Your task to perform on an android device: open app "LinkedIn" (install if not already installed) Image 0: 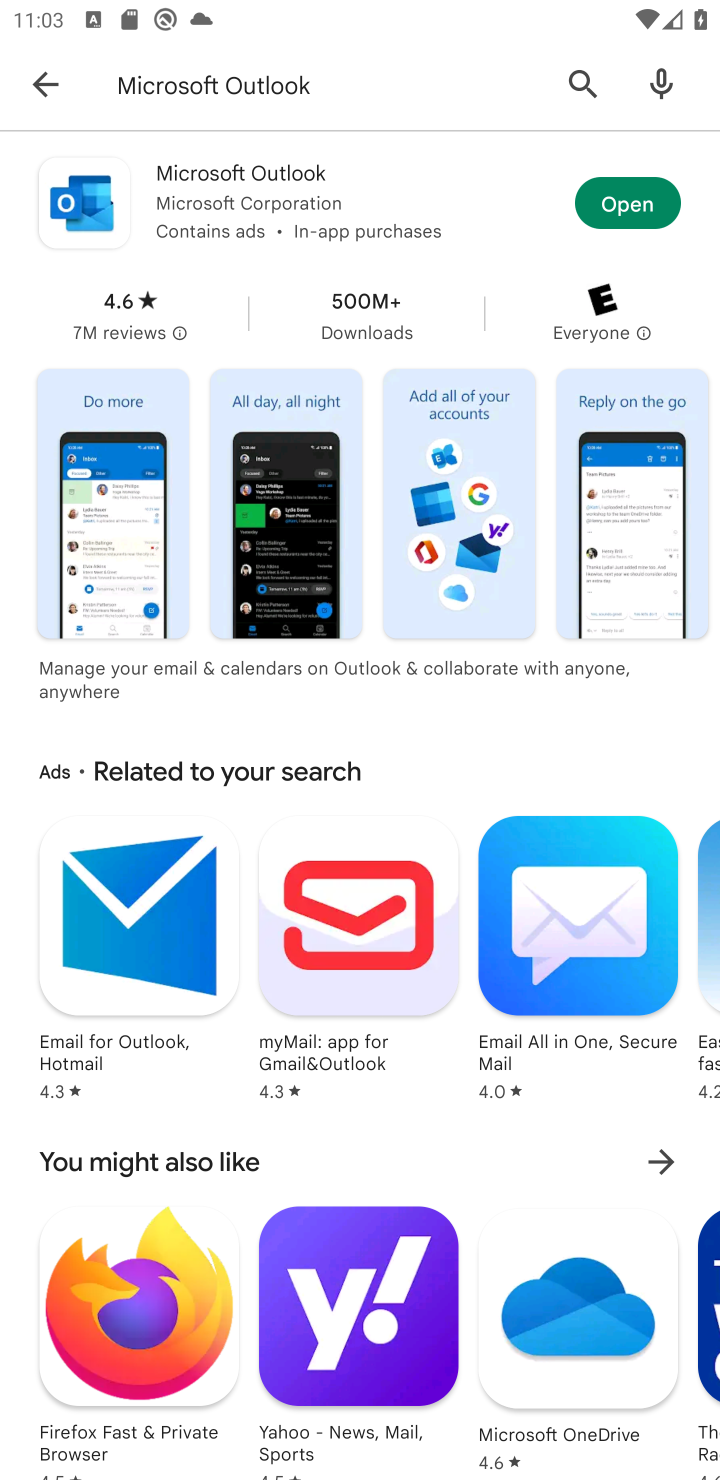
Step 0: press home button
Your task to perform on an android device: open app "LinkedIn" (install if not already installed) Image 1: 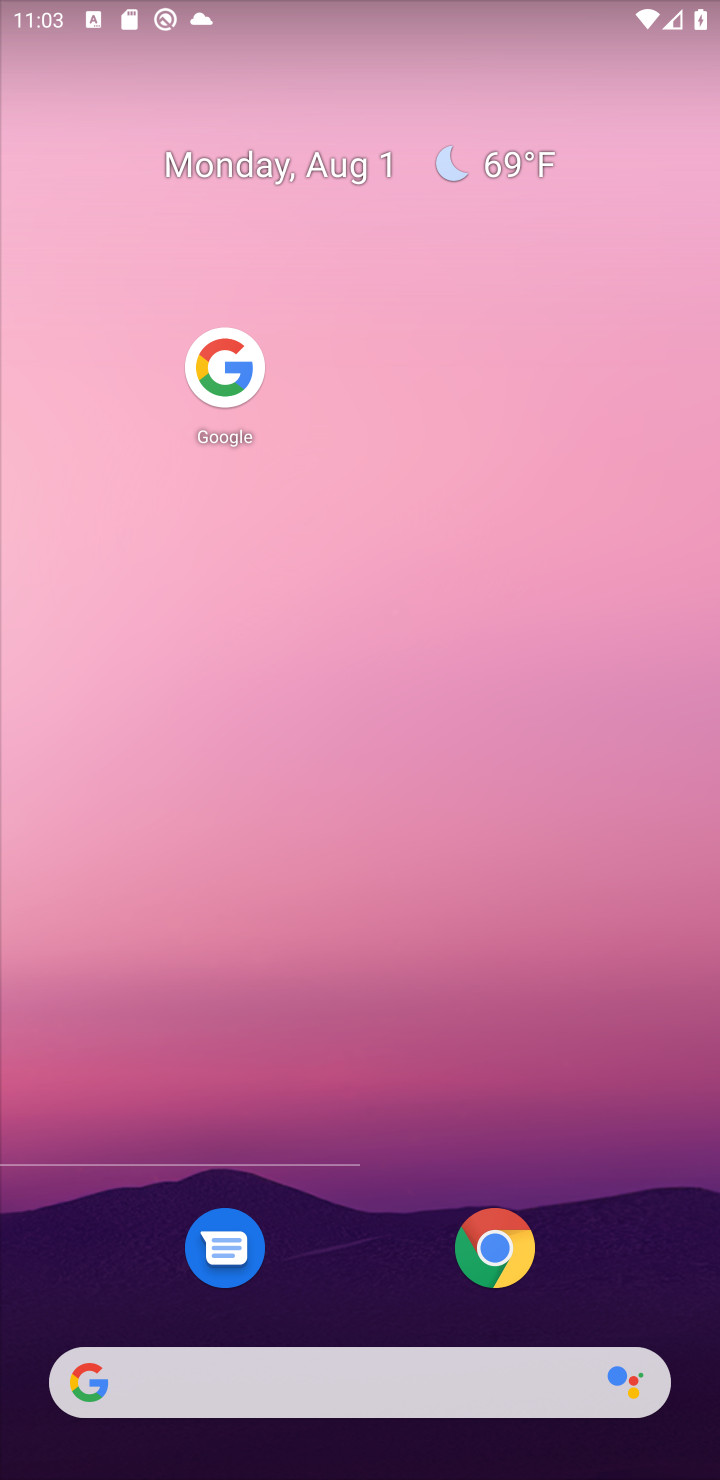
Step 1: drag from (391, 780) to (472, 202)
Your task to perform on an android device: open app "LinkedIn" (install if not already installed) Image 2: 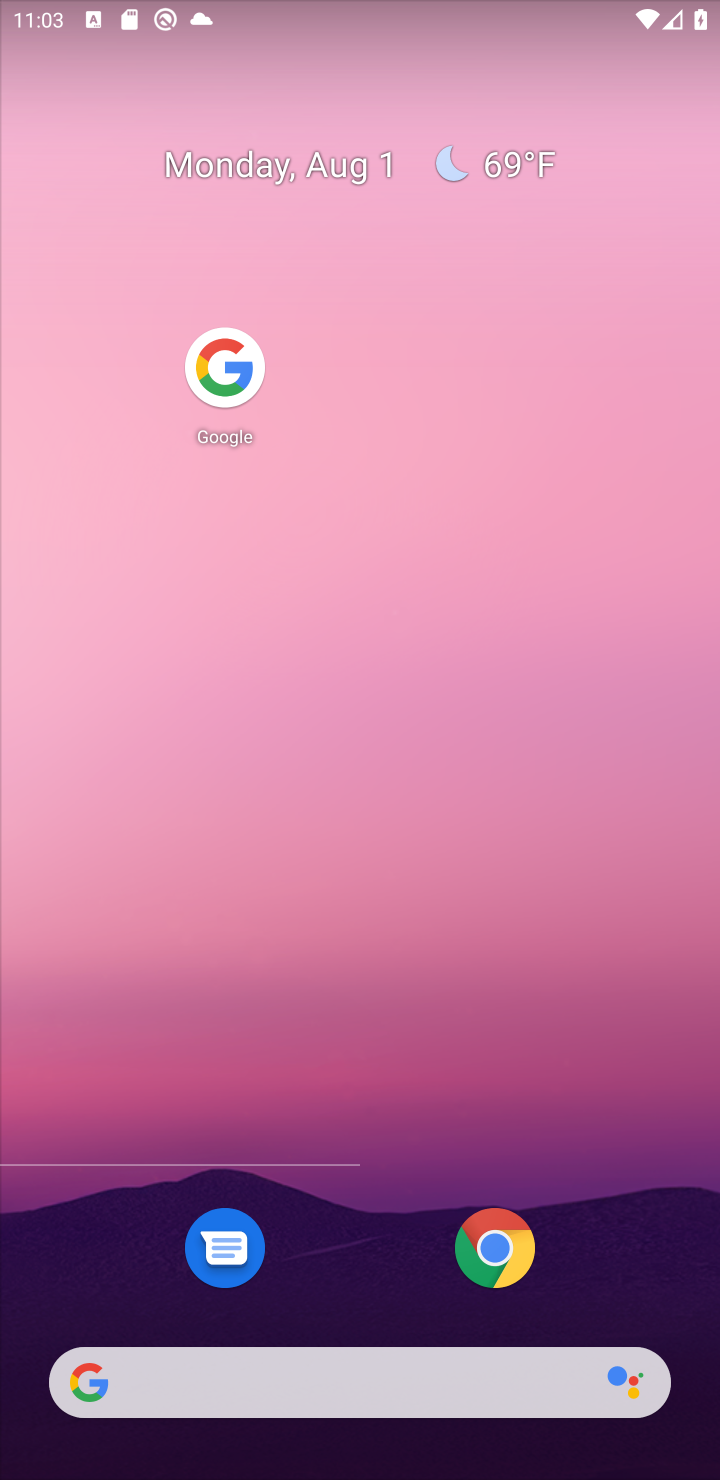
Step 2: drag from (478, 1011) to (599, 9)
Your task to perform on an android device: open app "LinkedIn" (install if not already installed) Image 3: 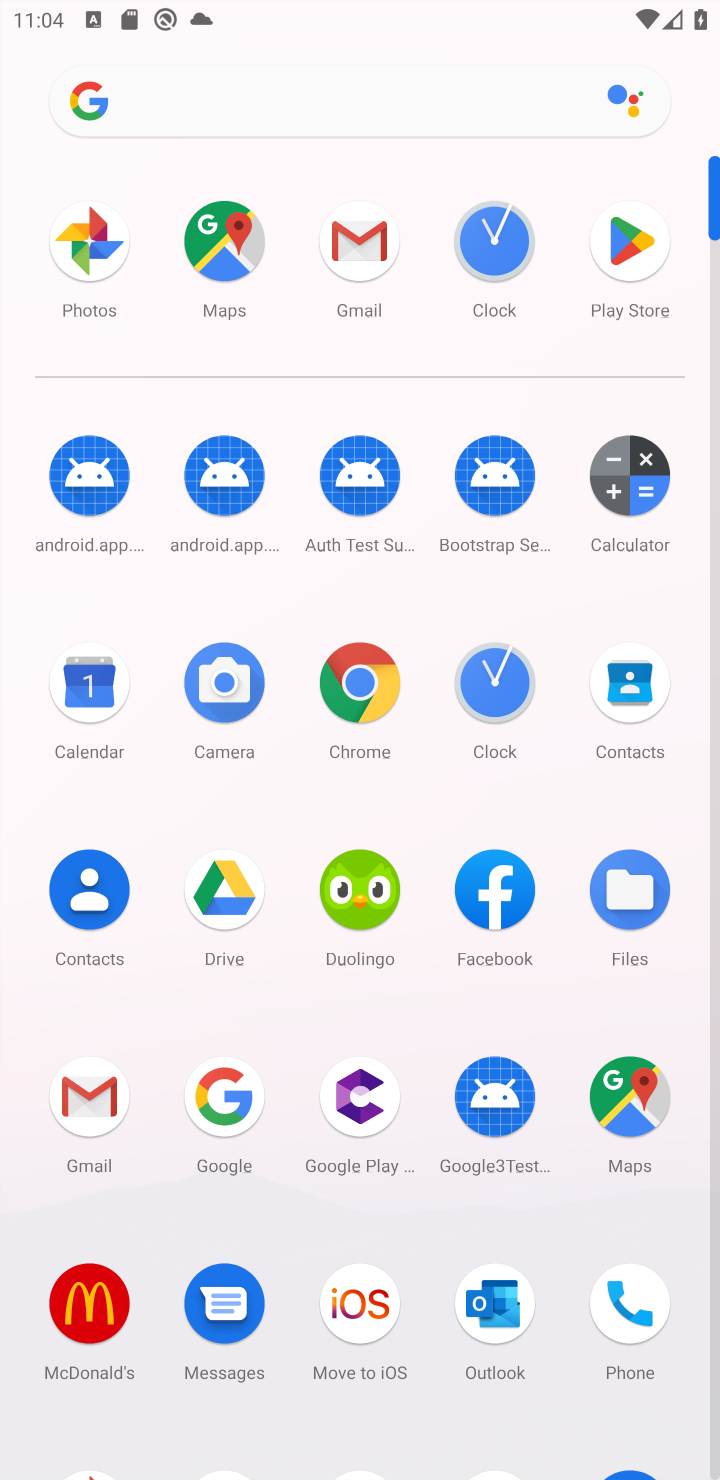
Step 3: drag from (284, 1227) to (312, 509)
Your task to perform on an android device: open app "LinkedIn" (install if not already installed) Image 4: 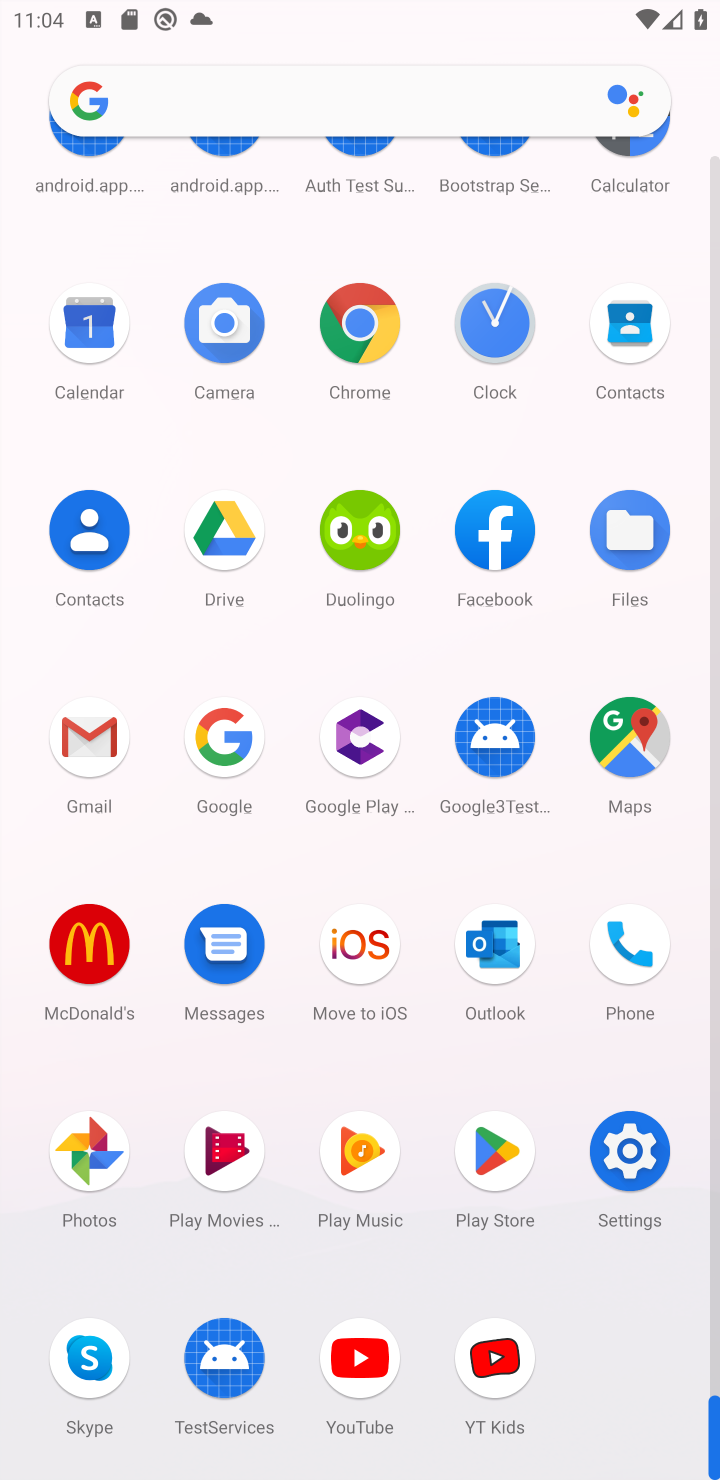
Step 4: click (491, 1168)
Your task to perform on an android device: open app "LinkedIn" (install if not already installed) Image 5: 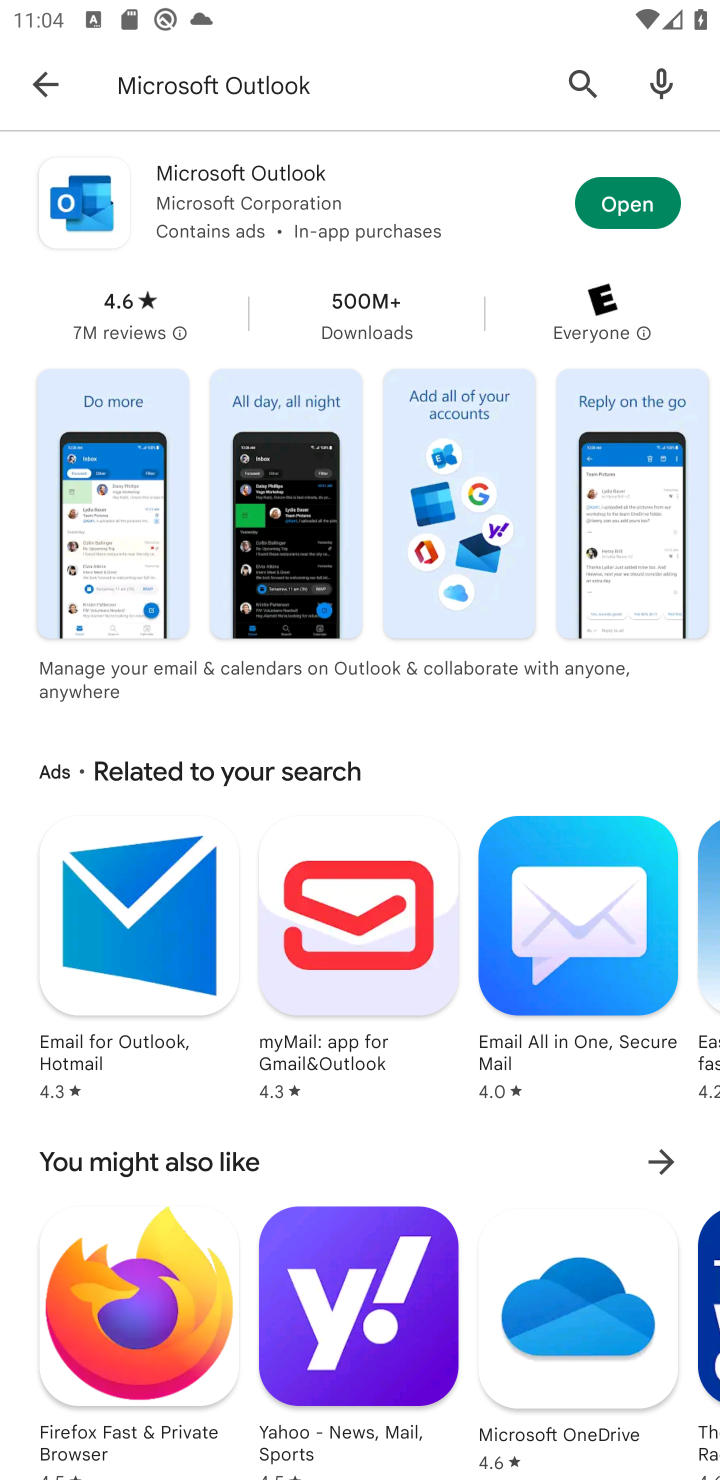
Step 5: click (365, 63)
Your task to perform on an android device: open app "LinkedIn" (install if not already installed) Image 6: 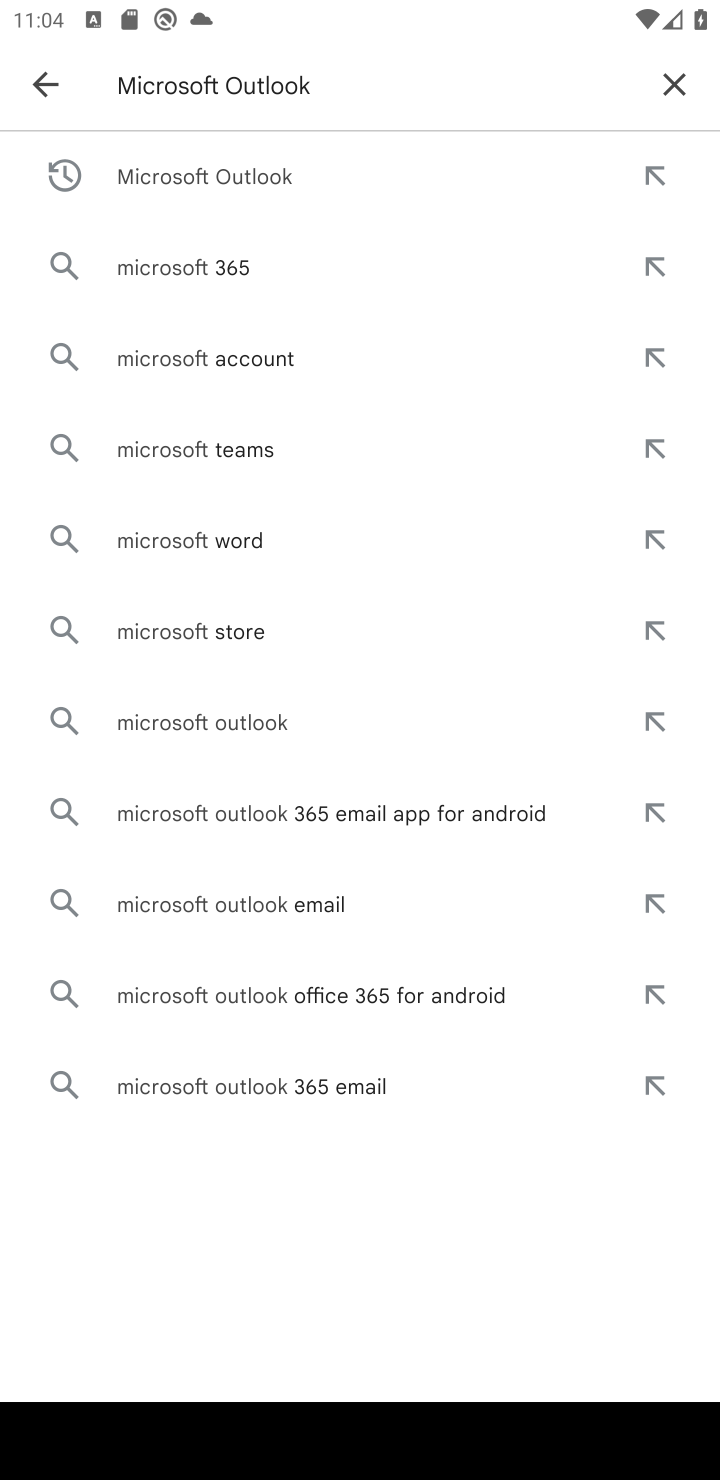
Step 6: click (684, 80)
Your task to perform on an android device: open app "LinkedIn" (install if not already installed) Image 7: 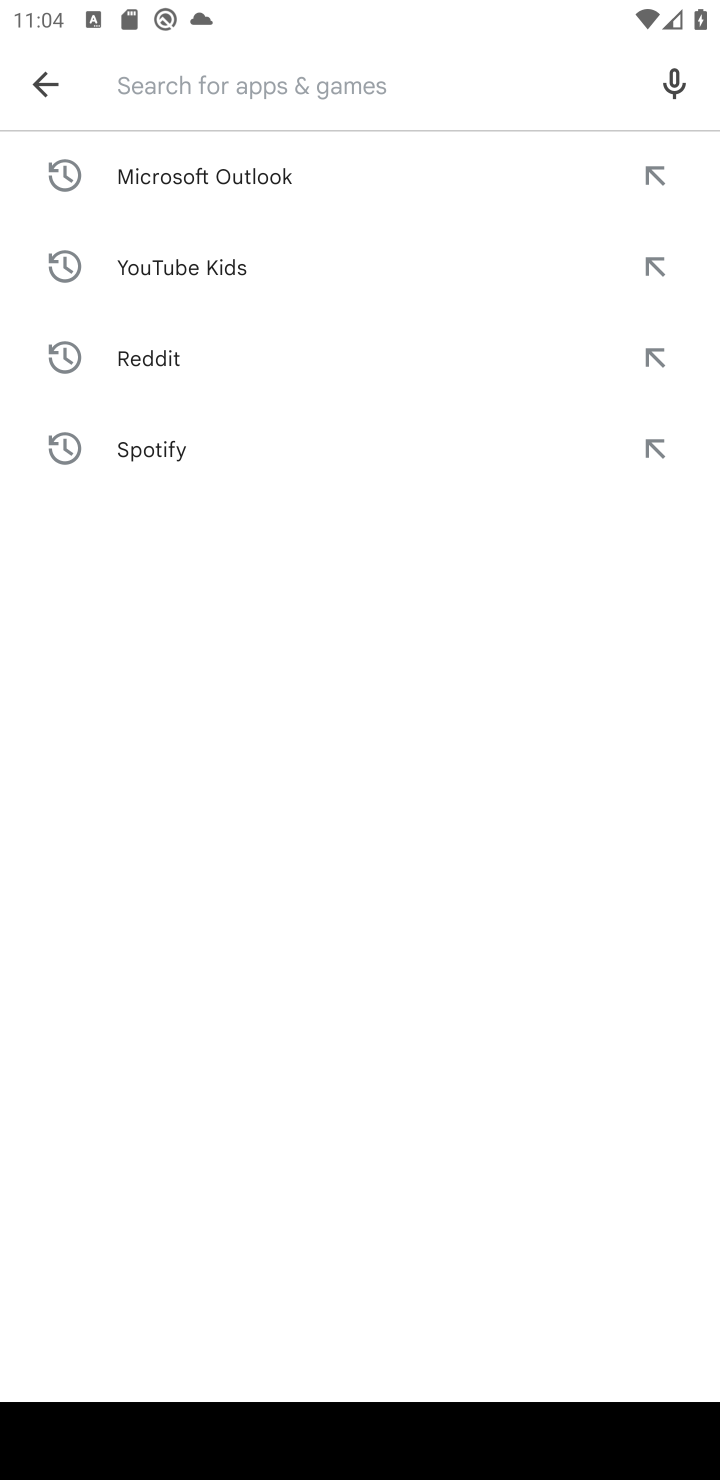
Step 7: type "Linkedln"
Your task to perform on an android device: open app "LinkedIn" (install if not already installed) Image 8: 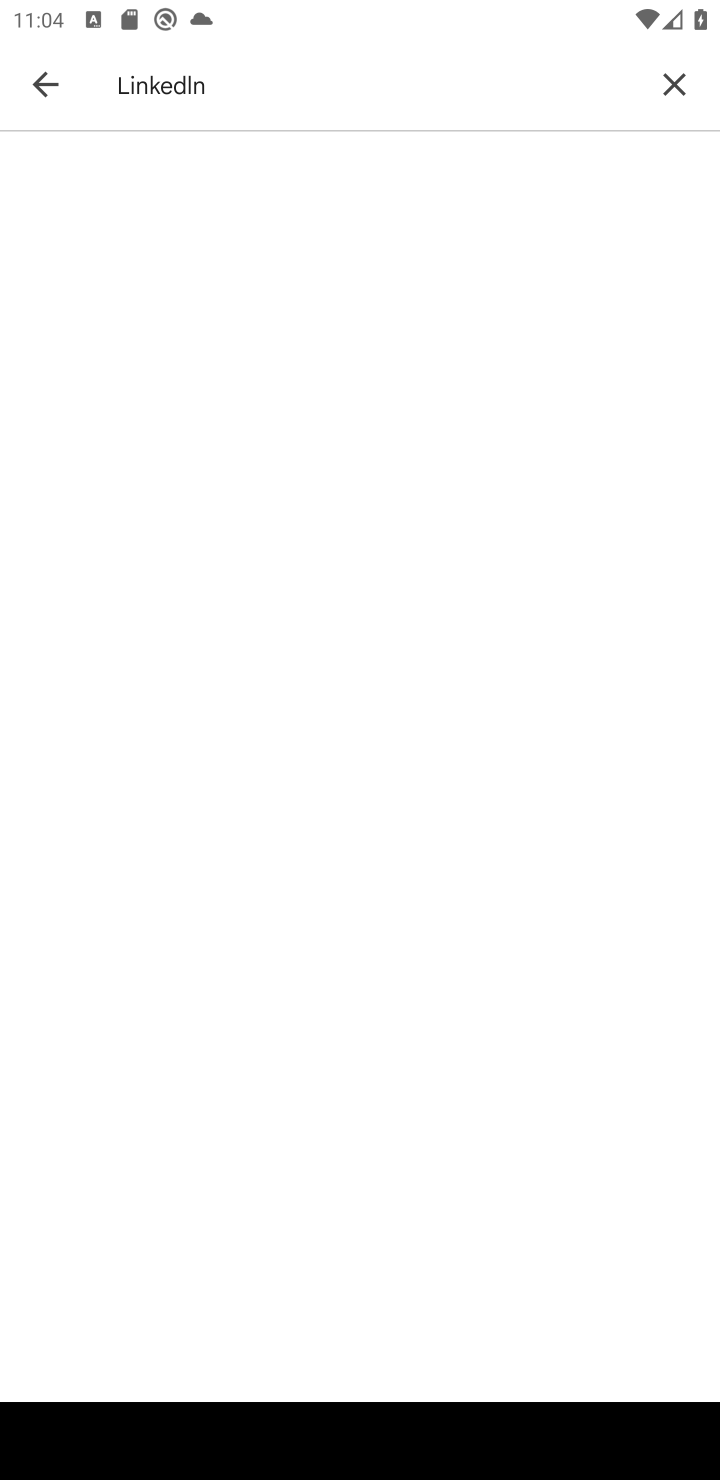
Step 8: press enter
Your task to perform on an android device: open app "LinkedIn" (install if not already installed) Image 9: 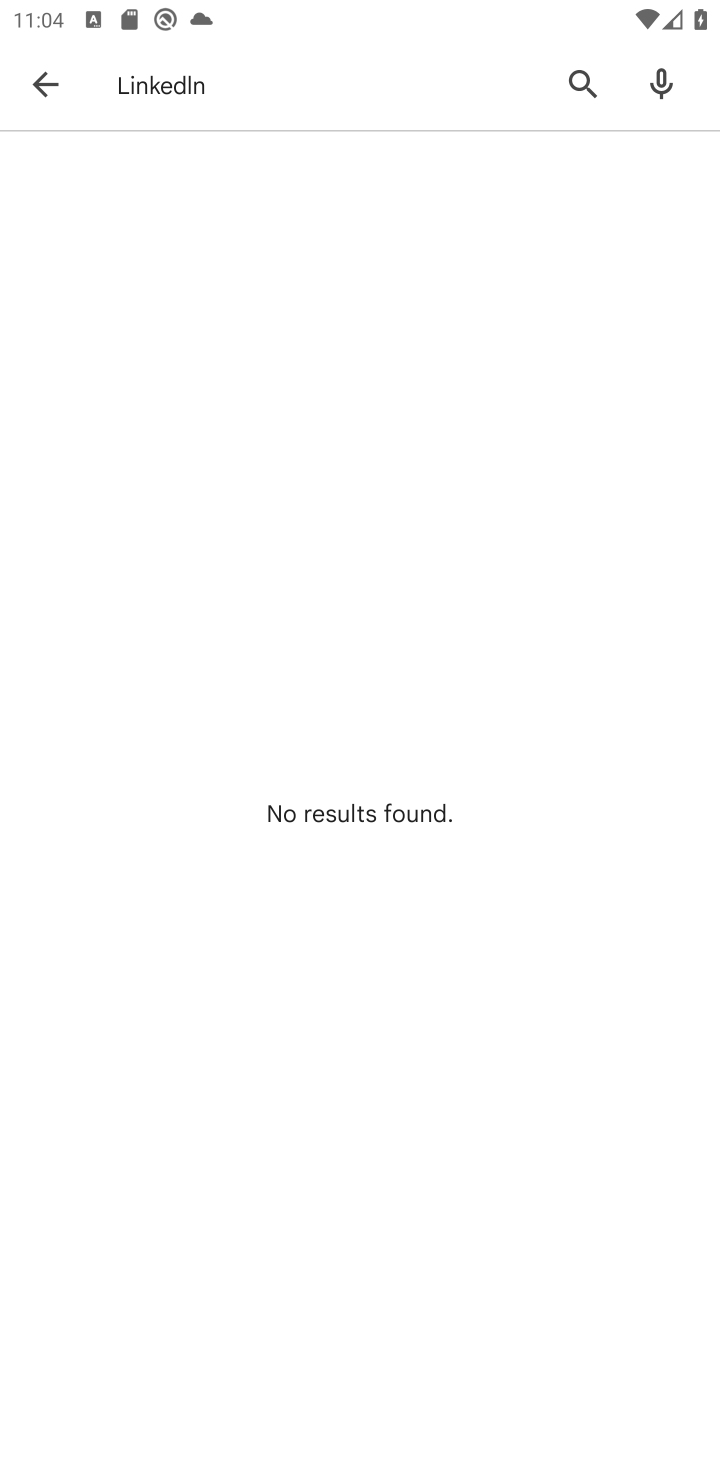
Step 9: task complete